Your task to perform on an android device: turn off smart reply in the gmail app Image 0: 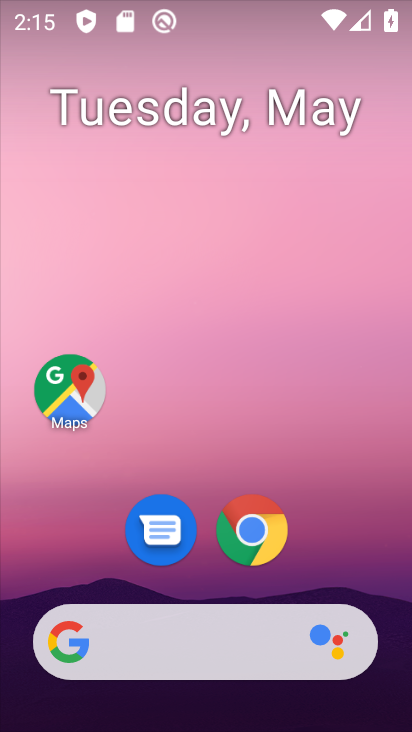
Step 0: drag from (208, 563) to (210, 184)
Your task to perform on an android device: turn off smart reply in the gmail app Image 1: 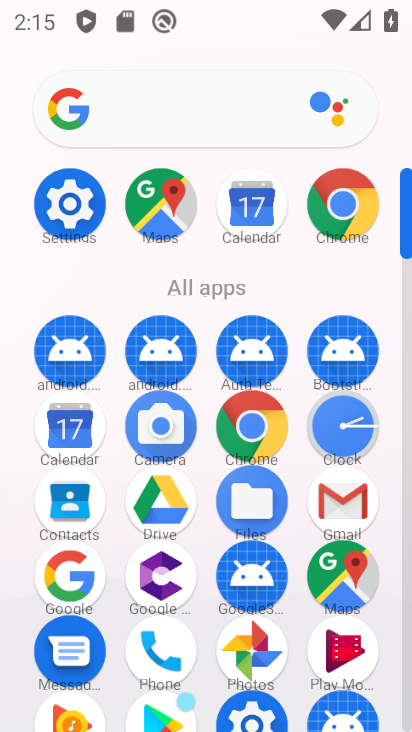
Step 1: click (327, 502)
Your task to perform on an android device: turn off smart reply in the gmail app Image 2: 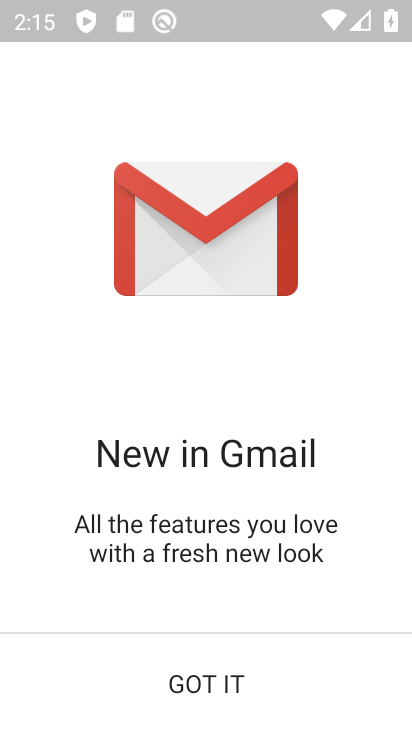
Step 2: click (221, 682)
Your task to perform on an android device: turn off smart reply in the gmail app Image 3: 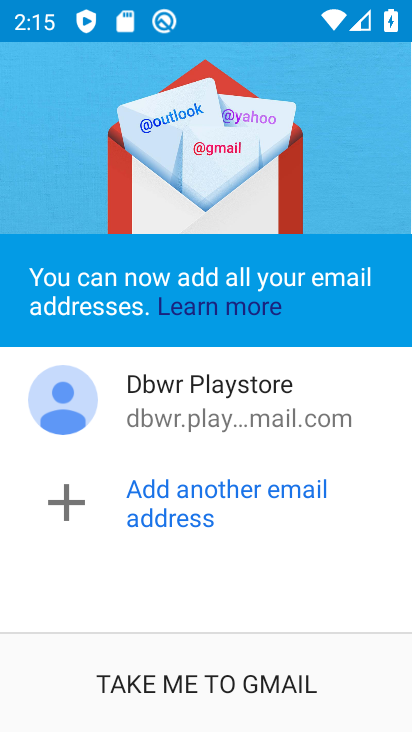
Step 3: drag from (252, 536) to (287, 332)
Your task to perform on an android device: turn off smart reply in the gmail app Image 4: 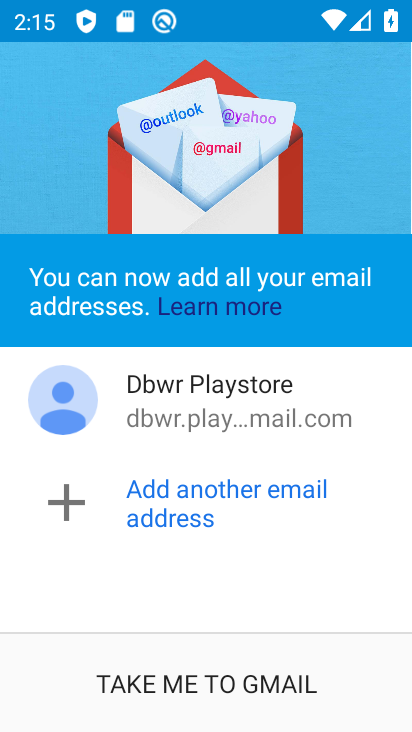
Step 4: click (235, 676)
Your task to perform on an android device: turn off smart reply in the gmail app Image 5: 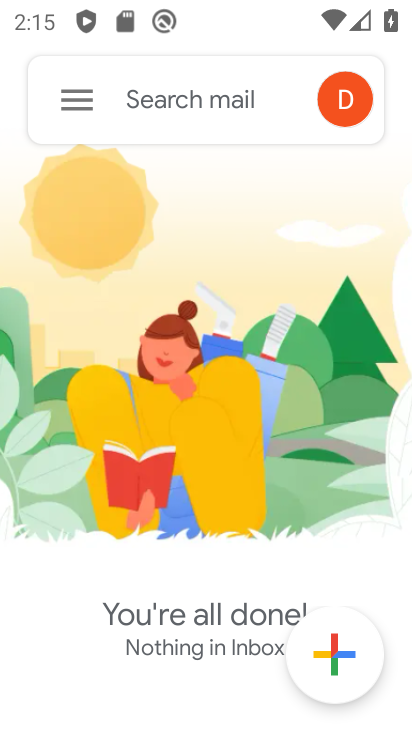
Step 5: click (70, 107)
Your task to perform on an android device: turn off smart reply in the gmail app Image 6: 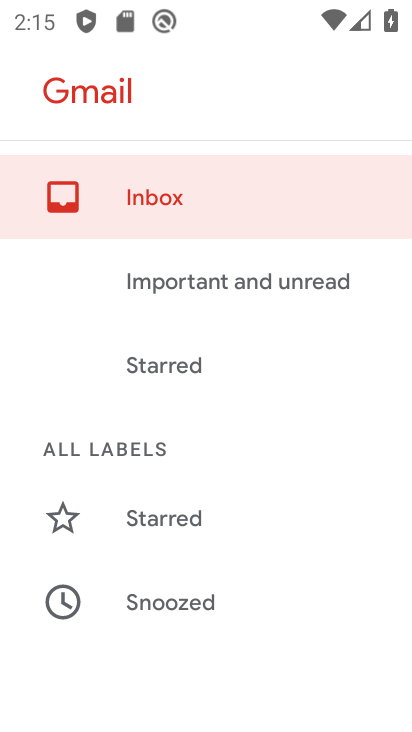
Step 6: drag from (158, 603) to (229, 164)
Your task to perform on an android device: turn off smart reply in the gmail app Image 7: 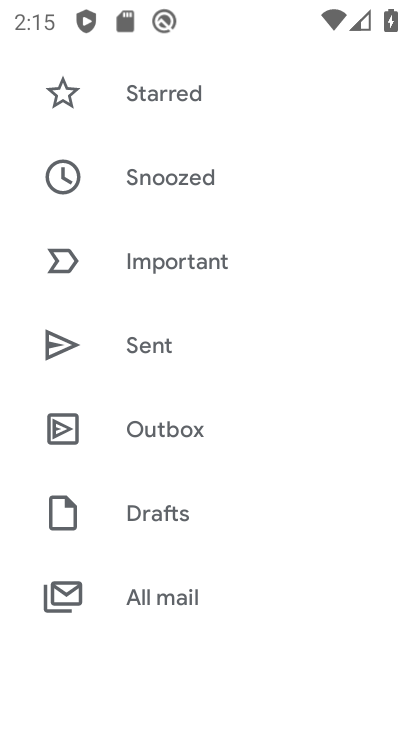
Step 7: drag from (170, 571) to (264, 186)
Your task to perform on an android device: turn off smart reply in the gmail app Image 8: 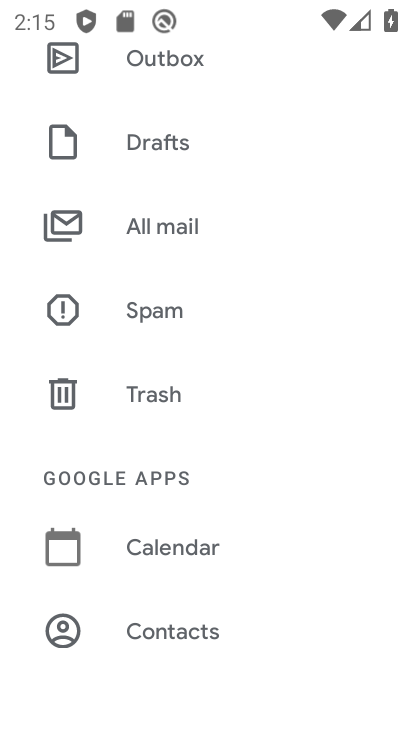
Step 8: drag from (165, 598) to (246, 231)
Your task to perform on an android device: turn off smart reply in the gmail app Image 9: 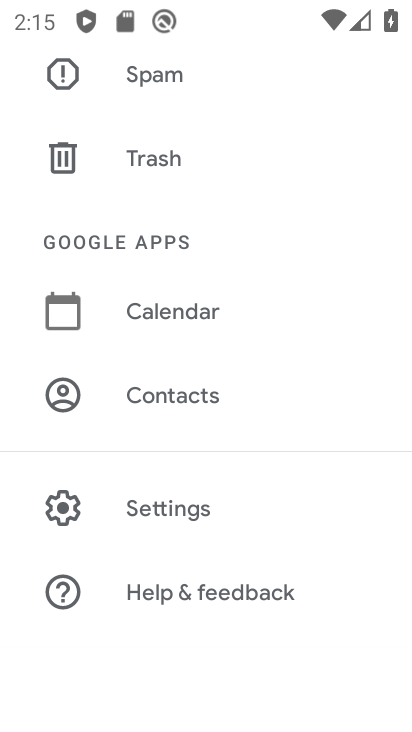
Step 9: click (180, 501)
Your task to perform on an android device: turn off smart reply in the gmail app Image 10: 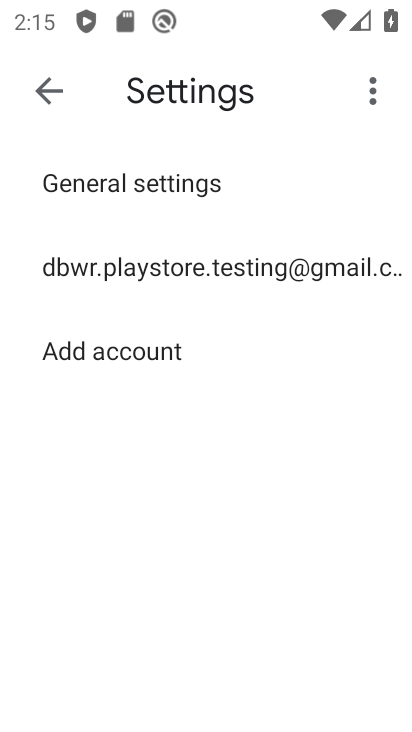
Step 10: click (187, 274)
Your task to perform on an android device: turn off smart reply in the gmail app Image 11: 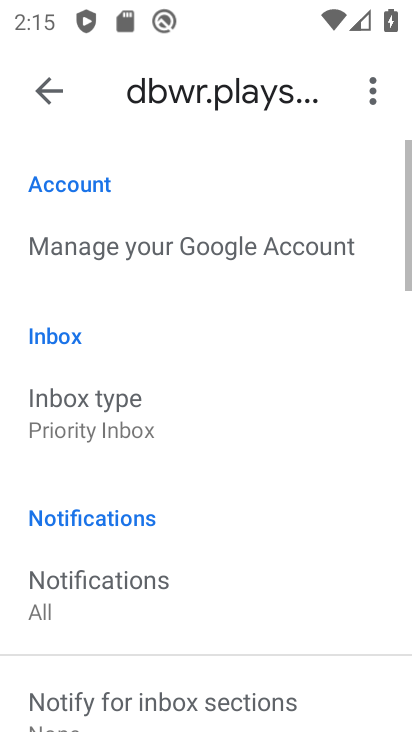
Step 11: drag from (204, 601) to (285, 203)
Your task to perform on an android device: turn off smart reply in the gmail app Image 12: 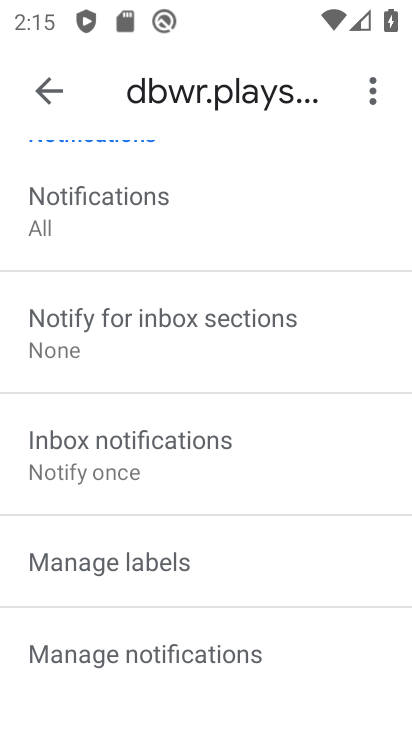
Step 12: drag from (215, 627) to (260, 227)
Your task to perform on an android device: turn off smart reply in the gmail app Image 13: 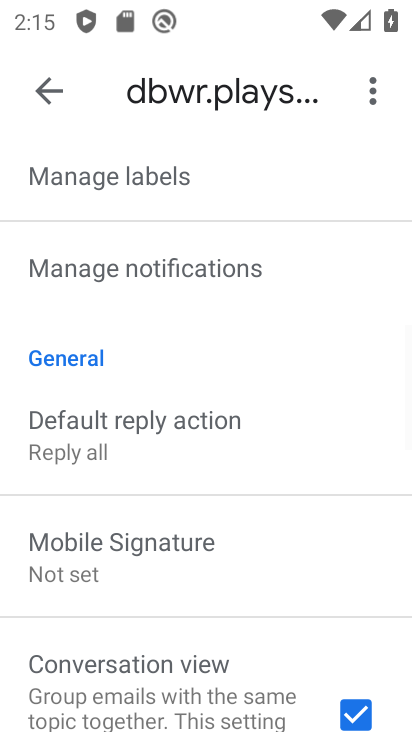
Step 13: drag from (216, 596) to (251, 263)
Your task to perform on an android device: turn off smart reply in the gmail app Image 14: 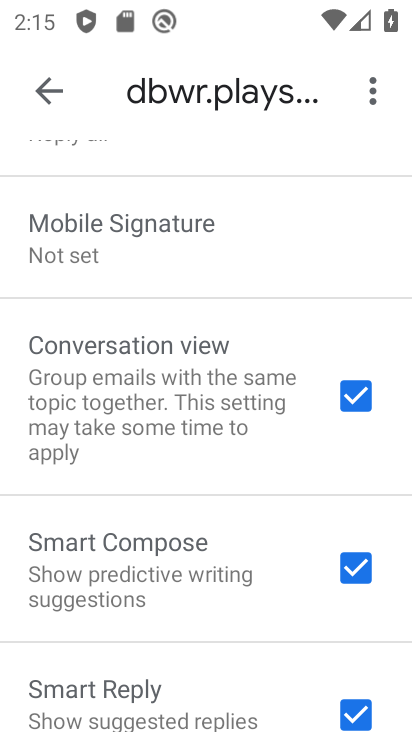
Step 14: click (348, 709)
Your task to perform on an android device: turn off smart reply in the gmail app Image 15: 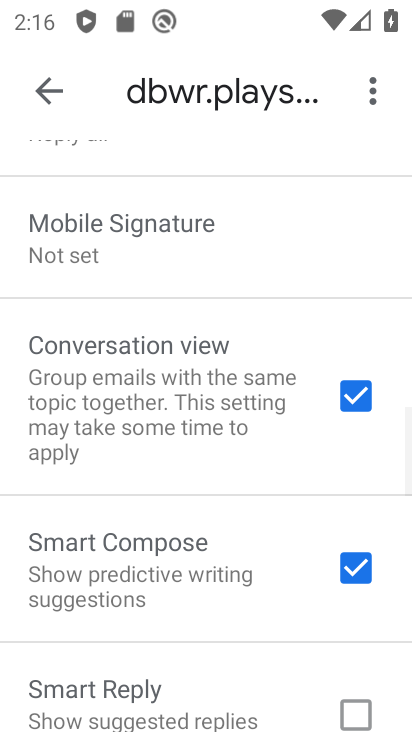
Step 15: task complete